Your task to perform on an android device: Go to Maps Image 0: 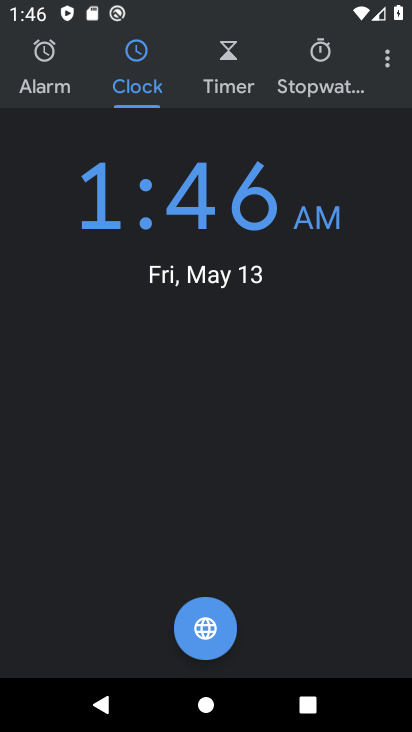
Step 0: press back button
Your task to perform on an android device: Go to Maps Image 1: 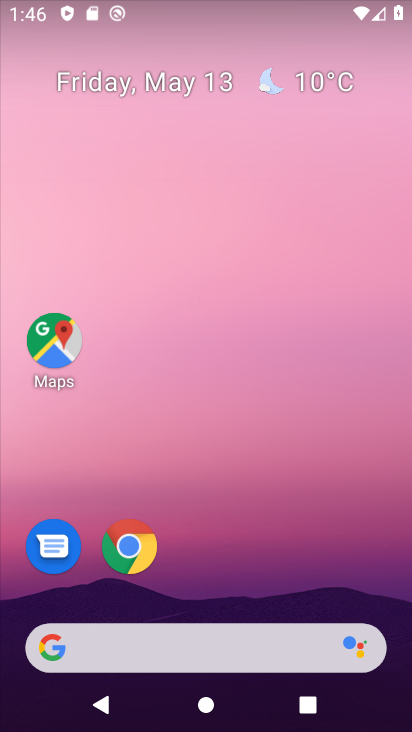
Step 1: click (48, 332)
Your task to perform on an android device: Go to Maps Image 2: 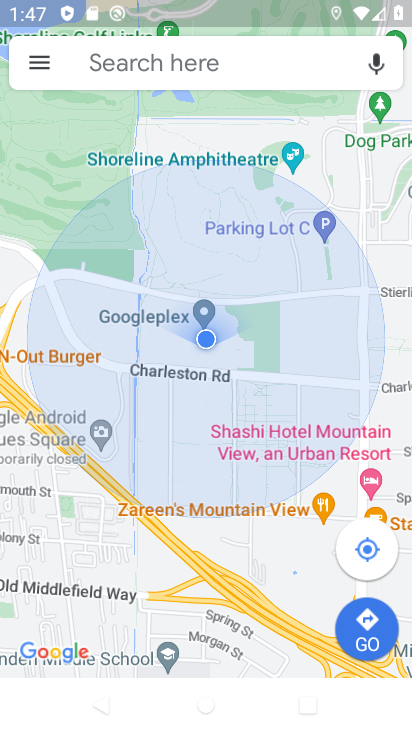
Step 2: task complete